Your task to perform on an android device: set the stopwatch Image 0: 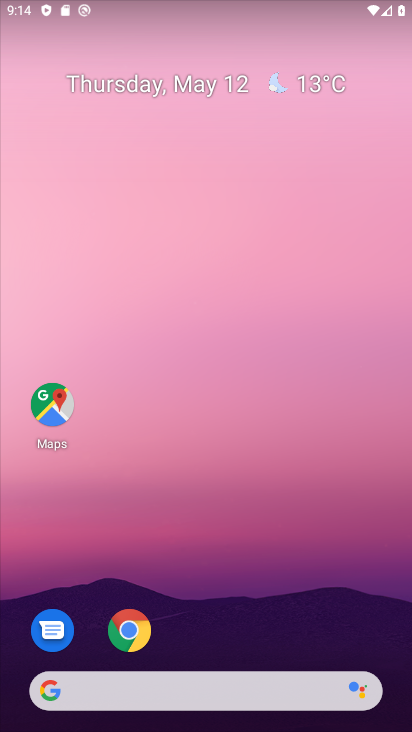
Step 0: drag from (183, 711) to (210, 161)
Your task to perform on an android device: set the stopwatch Image 1: 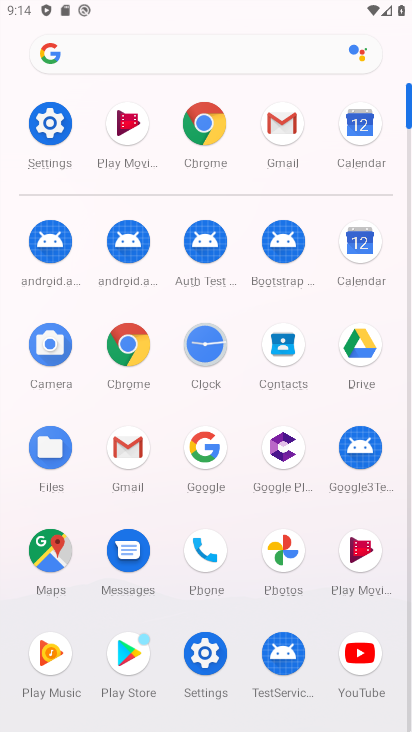
Step 1: click (209, 352)
Your task to perform on an android device: set the stopwatch Image 2: 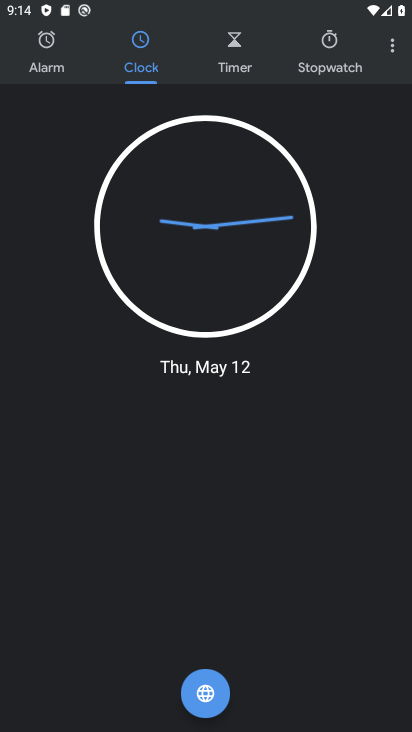
Step 2: click (298, 85)
Your task to perform on an android device: set the stopwatch Image 3: 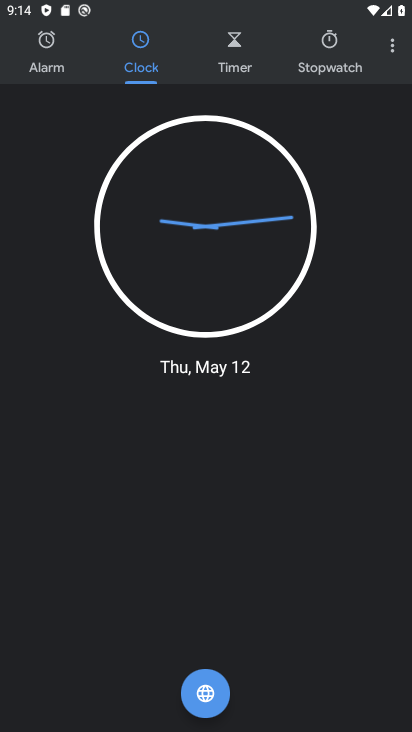
Step 3: click (335, 55)
Your task to perform on an android device: set the stopwatch Image 4: 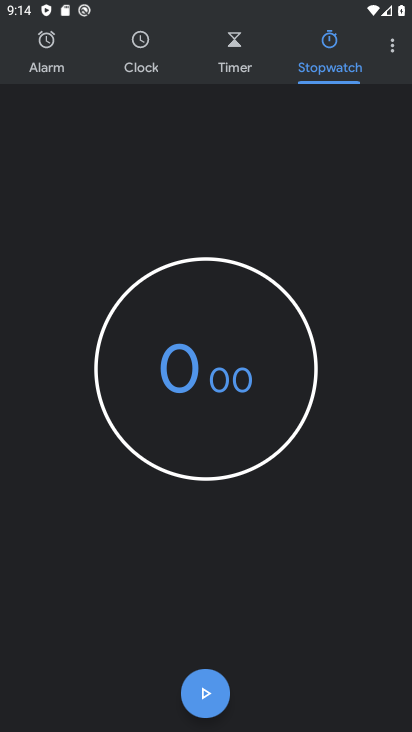
Step 4: click (198, 715)
Your task to perform on an android device: set the stopwatch Image 5: 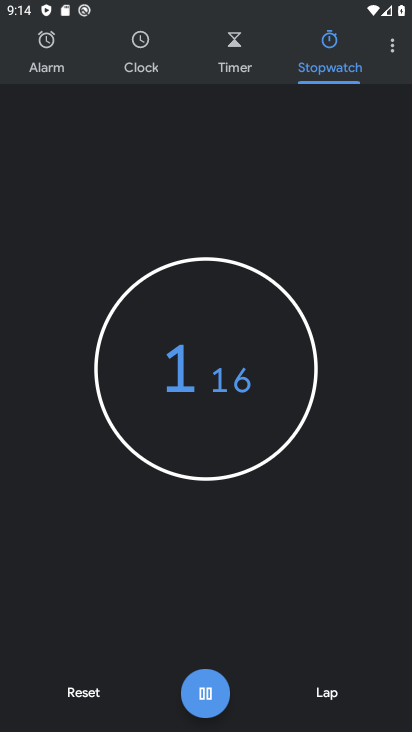
Step 5: task complete